Your task to perform on an android device: turn off sleep mode Image 0: 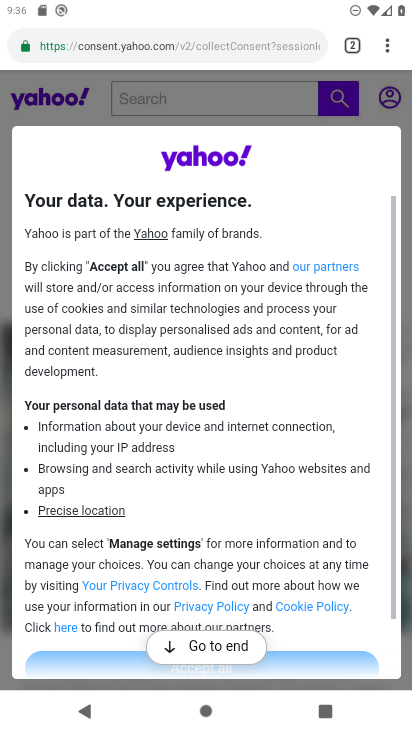
Step 0: drag from (269, 11) to (268, 700)
Your task to perform on an android device: turn off sleep mode Image 1: 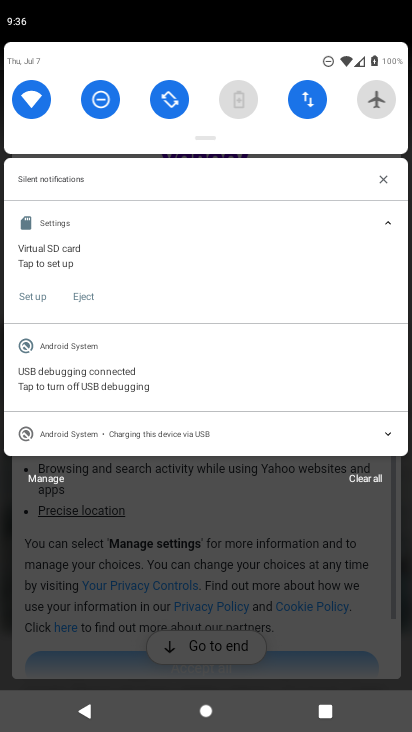
Step 1: drag from (220, 42) to (208, 639)
Your task to perform on an android device: turn off sleep mode Image 2: 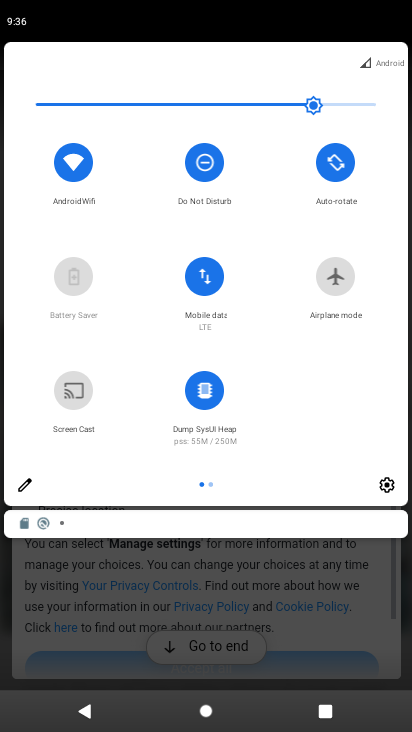
Step 2: click (397, 489)
Your task to perform on an android device: turn off sleep mode Image 3: 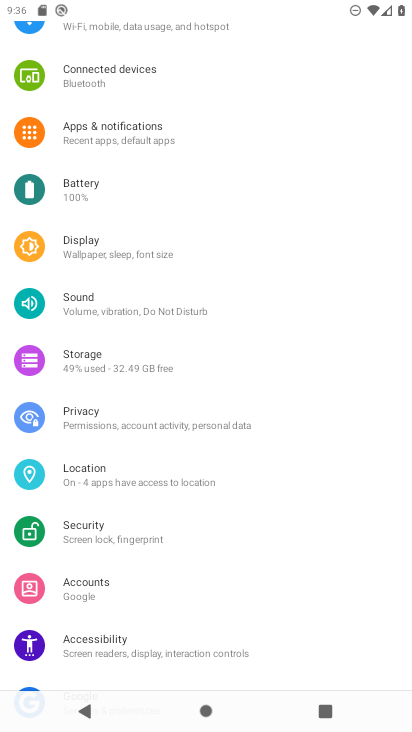
Step 3: task complete